Your task to perform on an android device: open the mobile data screen to see how much data has been used Image 0: 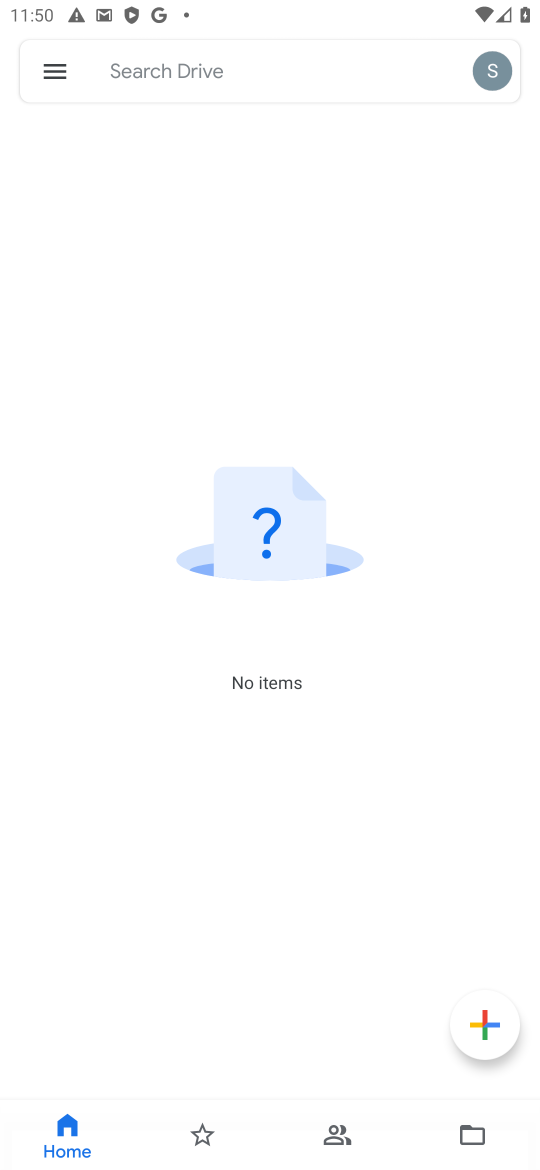
Step 0: task complete